Your task to perform on an android device: Open Google Chrome and open the bookmarks view Image 0: 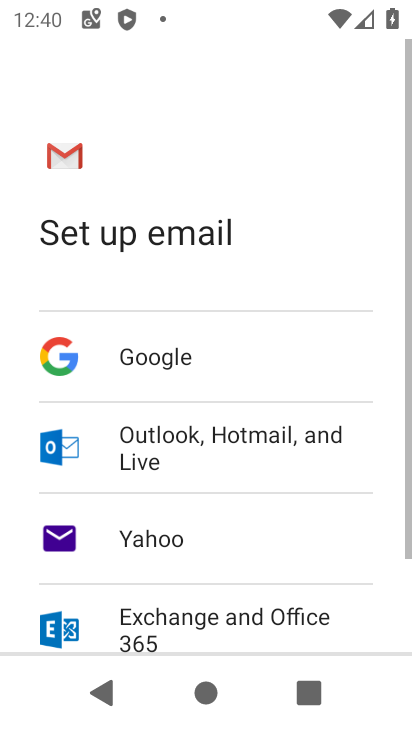
Step 0: press home button
Your task to perform on an android device: Open Google Chrome and open the bookmarks view Image 1: 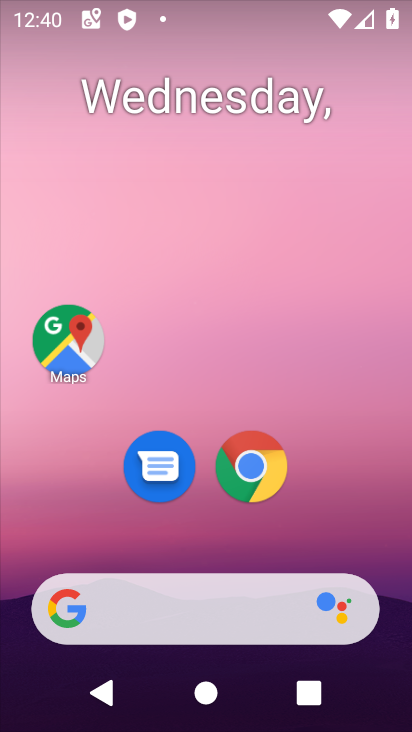
Step 1: click (241, 470)
Your task to perform on an android device: Open Google Chrome and open the bookmarks view Image 2: 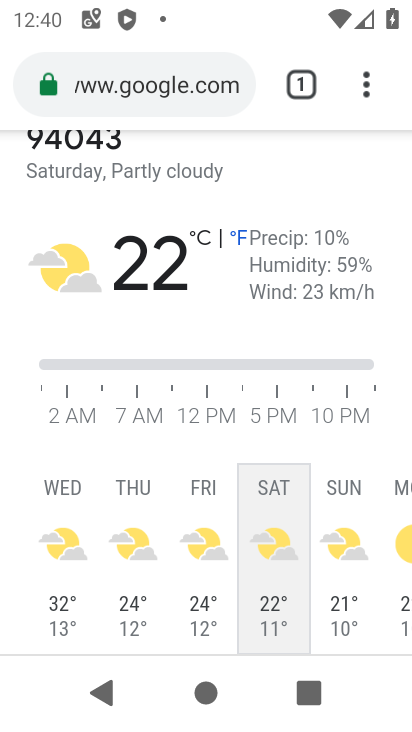
Step 2: task complete